Your task to perform on an android device: Open ESPN.com Image 0: 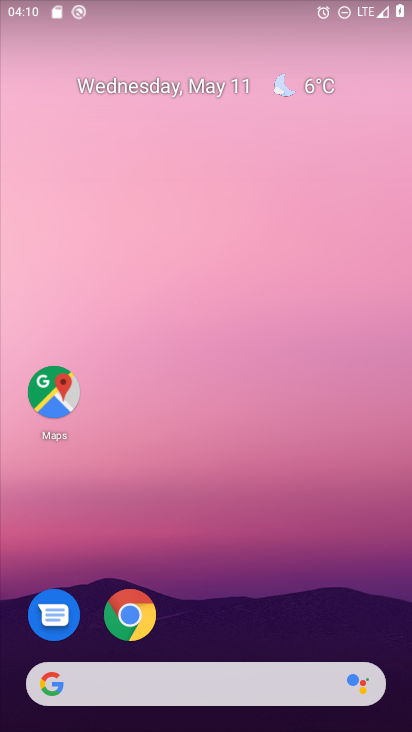
Step 0: click (130, 617)
Your task to perform on an android device: Open ESPN.com Image 1: 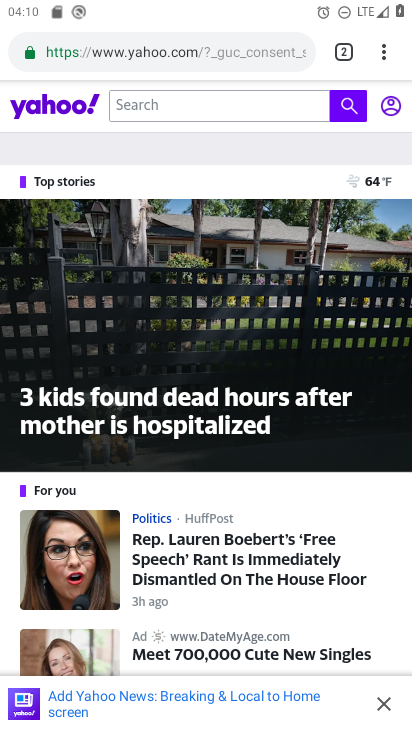
Step 1: click (220, 36)
Your task to perform on an android device: Open ESPN.com Image 2: 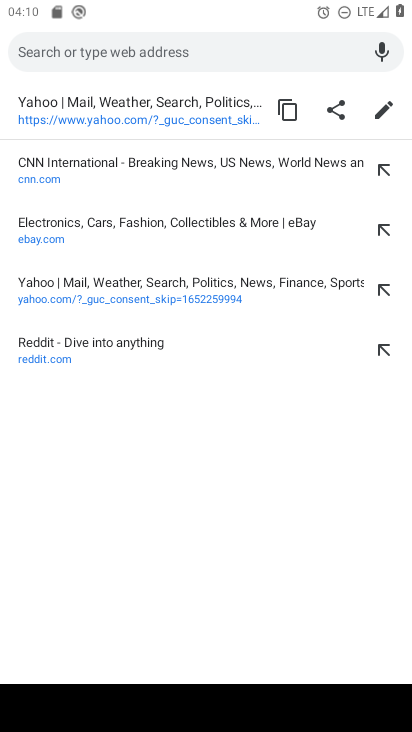
Step 2: type "espn.com"
Your task to perform on an android device: Open ESPN.com Image 3: 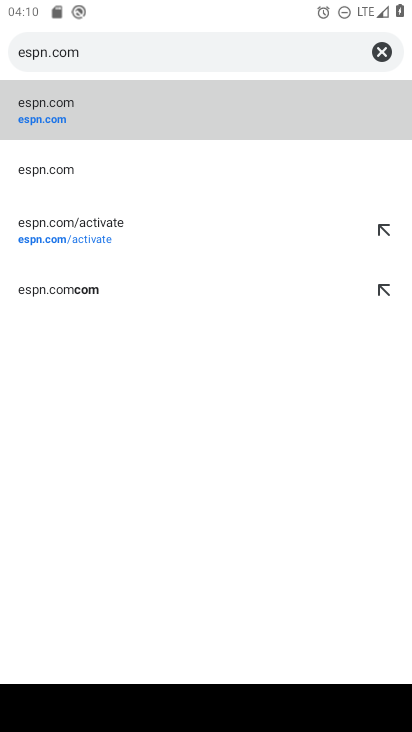
Step 3: click (45, 115)
Your task to perform on an android device: Open ESPN.com Image 4: 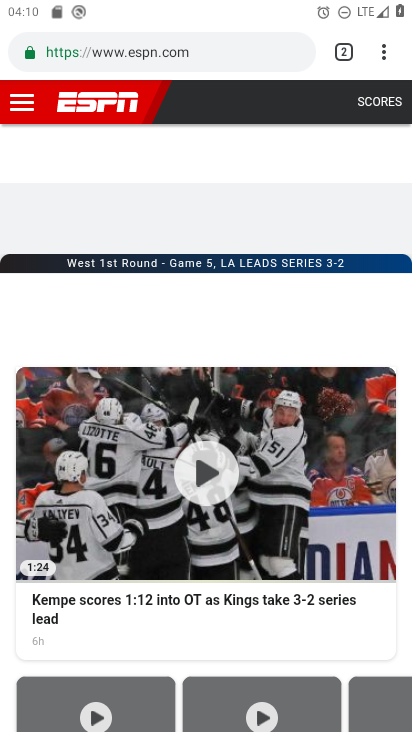
Step 4: task complete